Your task to perform on an android device: Open wifi settings Image 0: 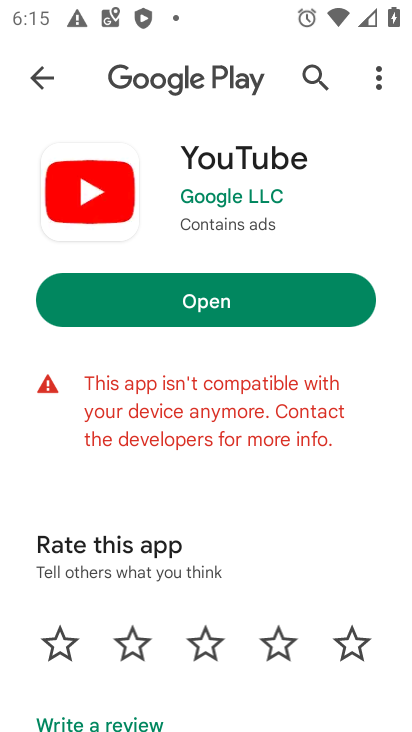
Step 0: press home button
Your task to perform on an android device: Open wifi settings Image 1: 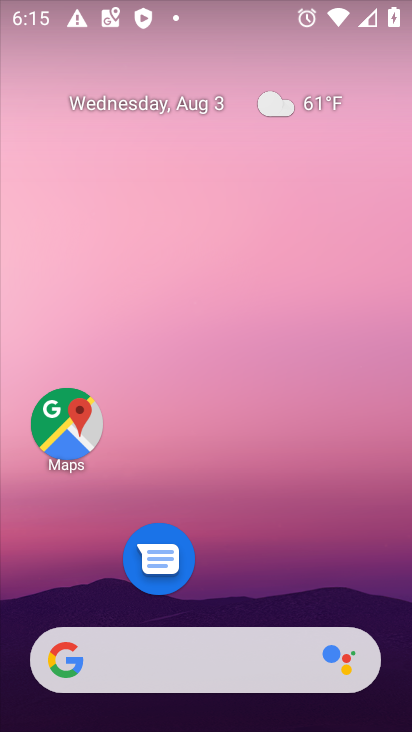
Step 1: drag from (199, 638) to (199, 225)
Your task to perform on an android device: Open wifi settings Image 2: 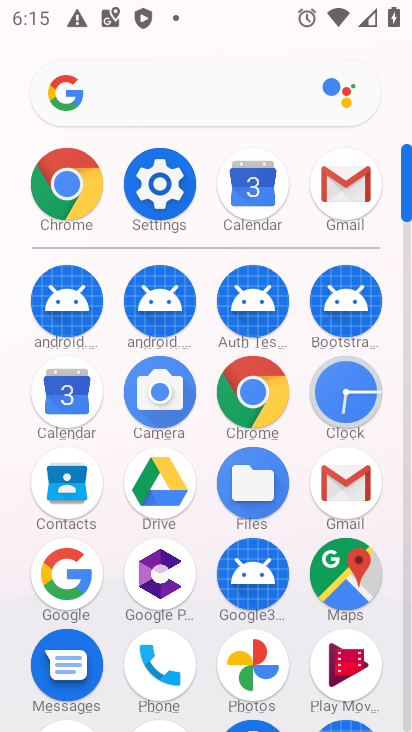
Step 2: click (165, 183)
Your task to perform on an android device: Open wifi settings Image 3: 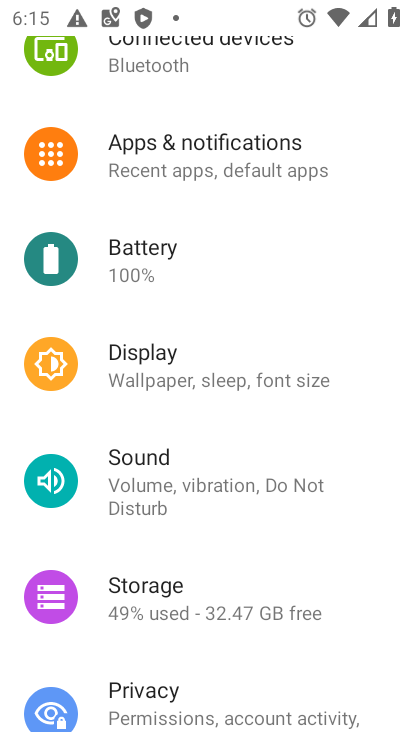
Step 3: drag from (155, 115) to (173, 521)
Your task to perform on an android device: Open wifi settings Image 4: 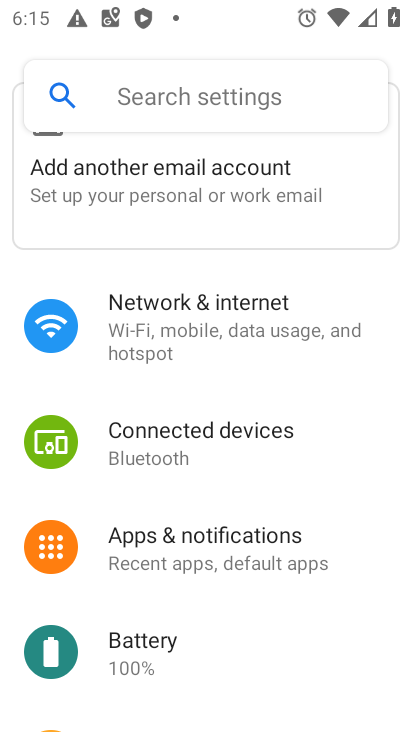
Step 4: click (242, 329)
Your task to perform on an android device: Open wifi settings Image 5: 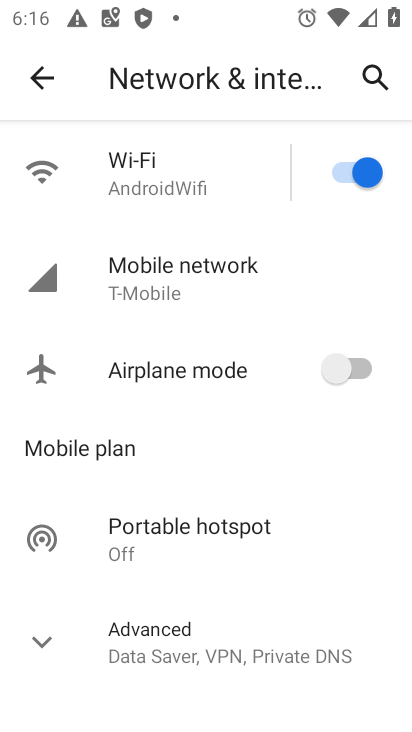
Step 5: click (157, 166)
Your task to perform on an android device: Open wifi settings Image 6: 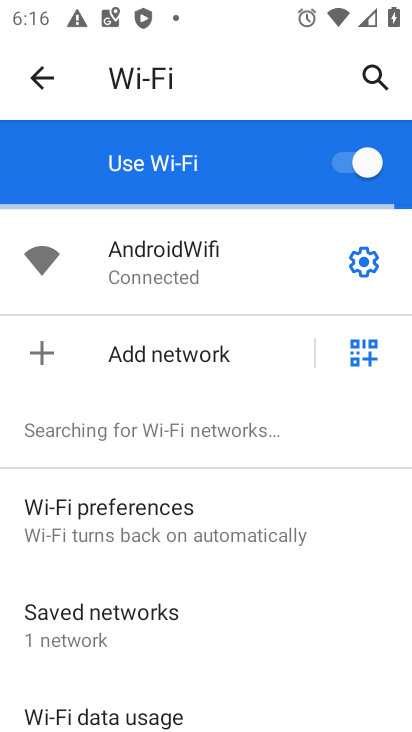
Step 6: click (364, 264)
Your task to perform on an android device: Open wifi settings Image 7: 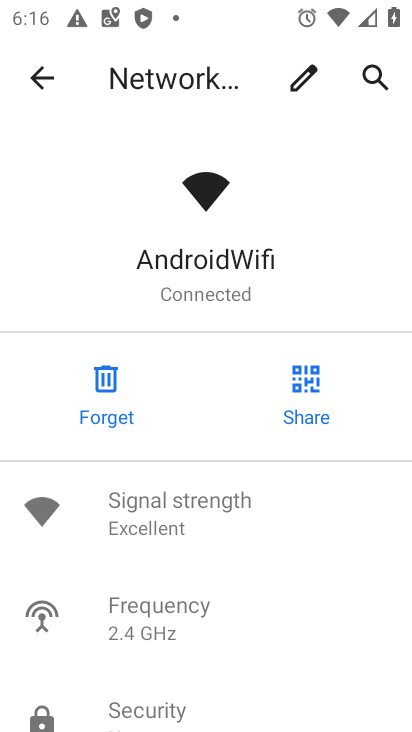
Step 7: drag from (189, 680) to (205, 269)
Your task to perform on an android device: Open wifi settings Image 8: 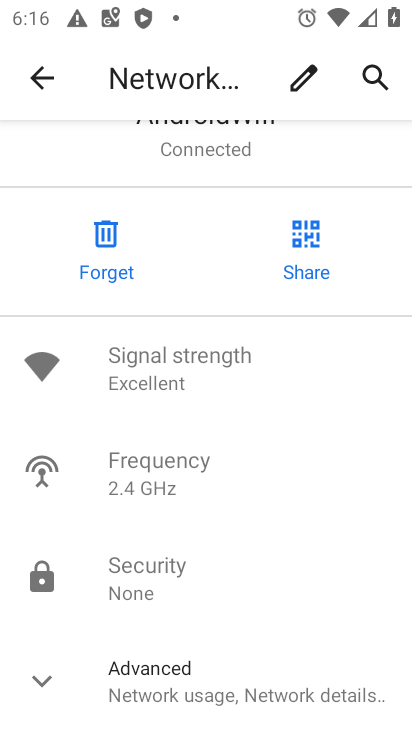
Step 8: click (171, 686)
Your task to perform on an android device: Open wifi settings Image 9: 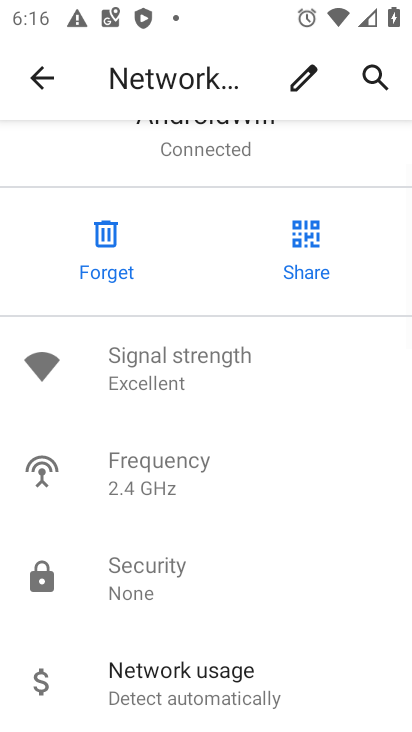
Step 9: task complete